Your task to perform on an android device: Open wifi settings Image 0: 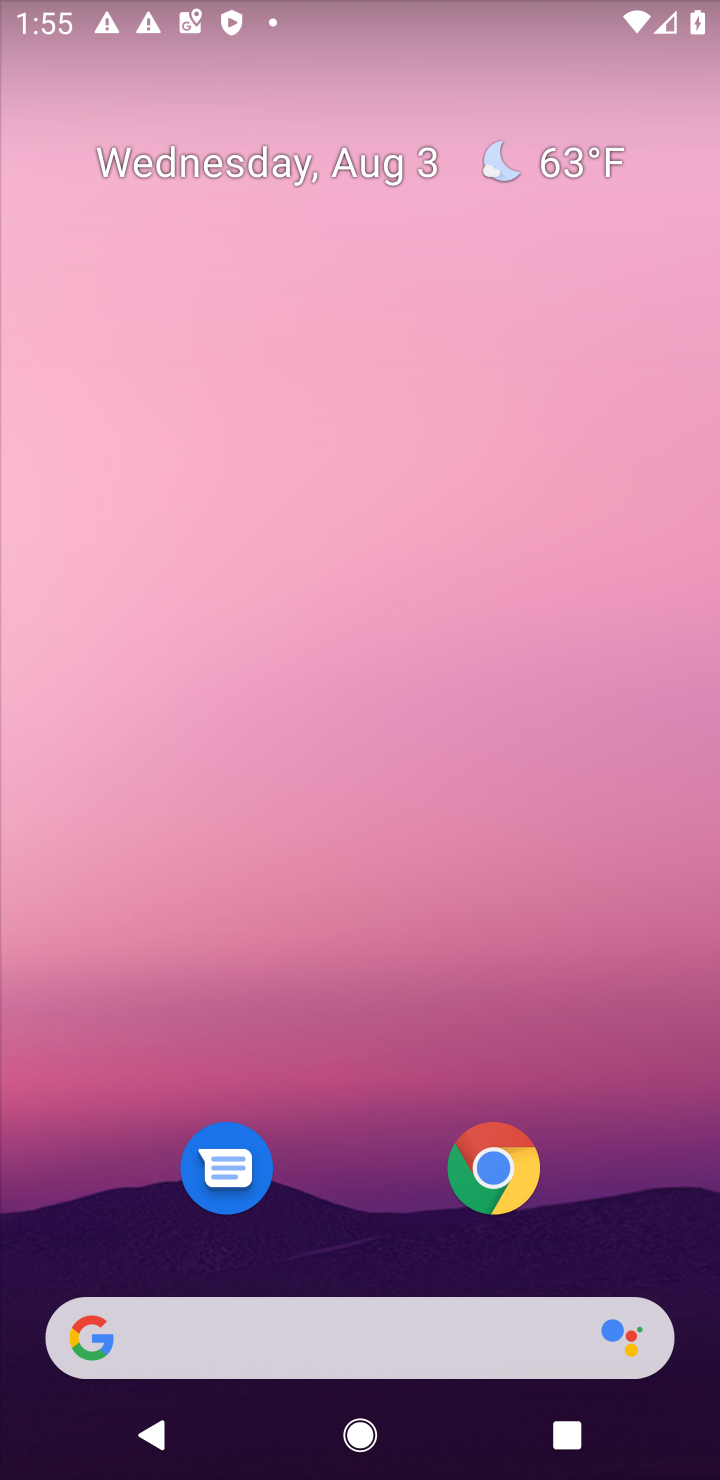
Step 0: drag from (643, 1249) to (579, 237)
Your task to perform on an android device: Open wifi settings Image 1: 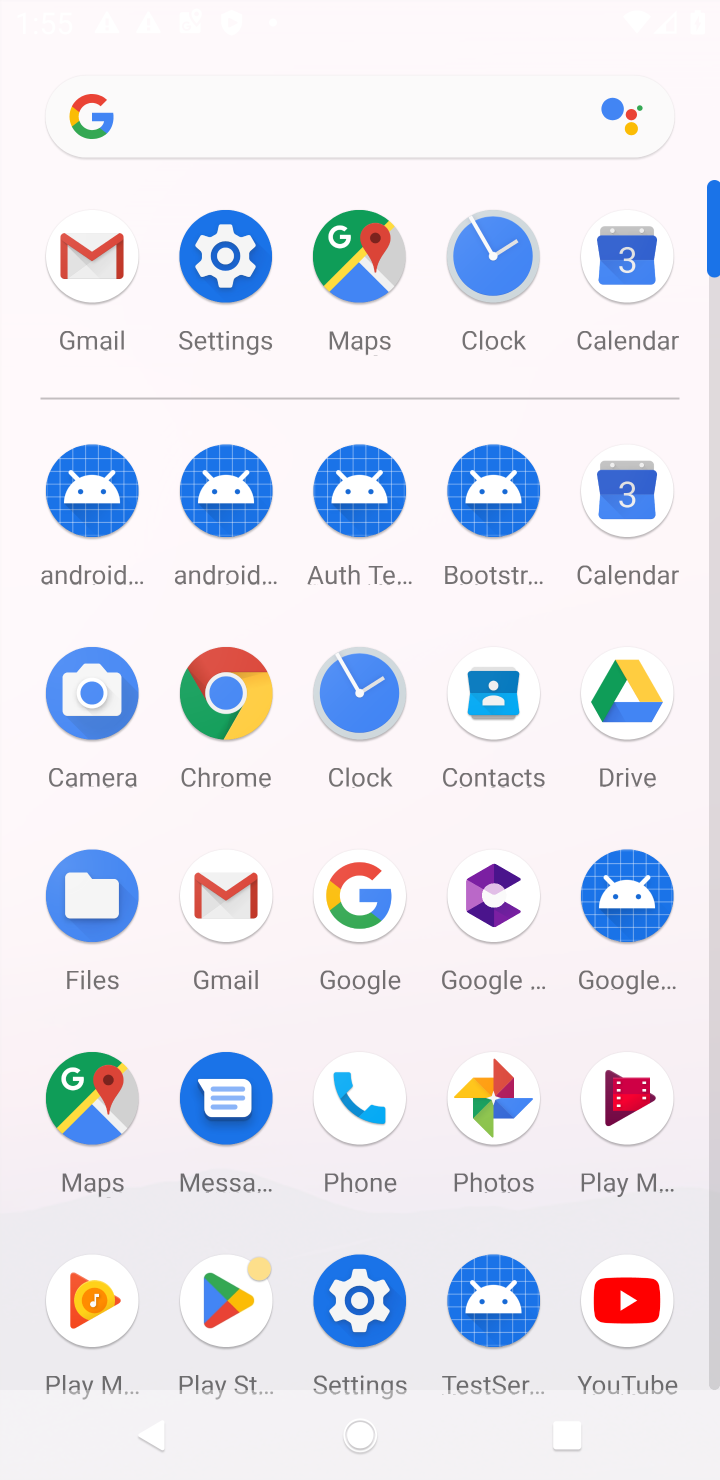
Step 1: click (355, 1299)
Your task to perform on an android device: Open wifi settings Image 2: 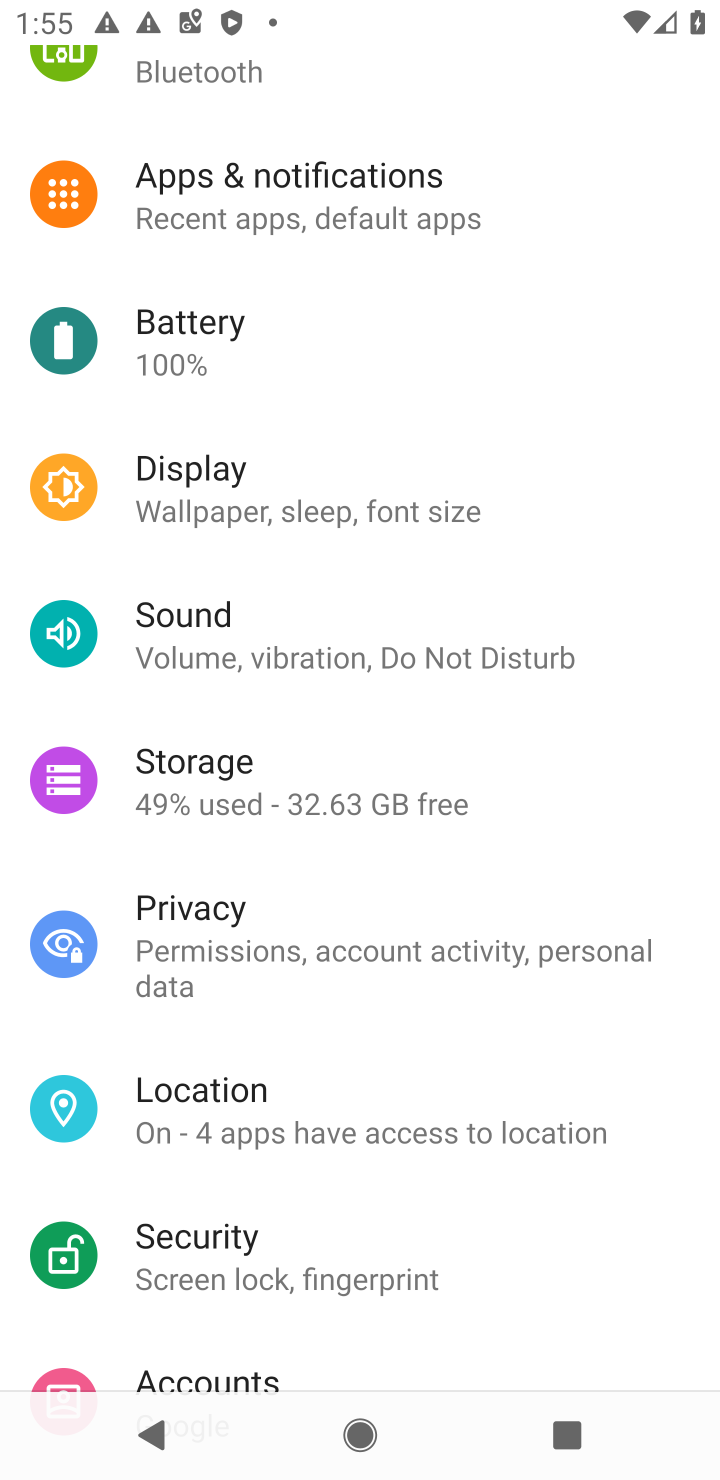
Step 2: drag from (573, 277) to (517, 770)
Your task to perform on an android device: Open wifi settings Image 3: 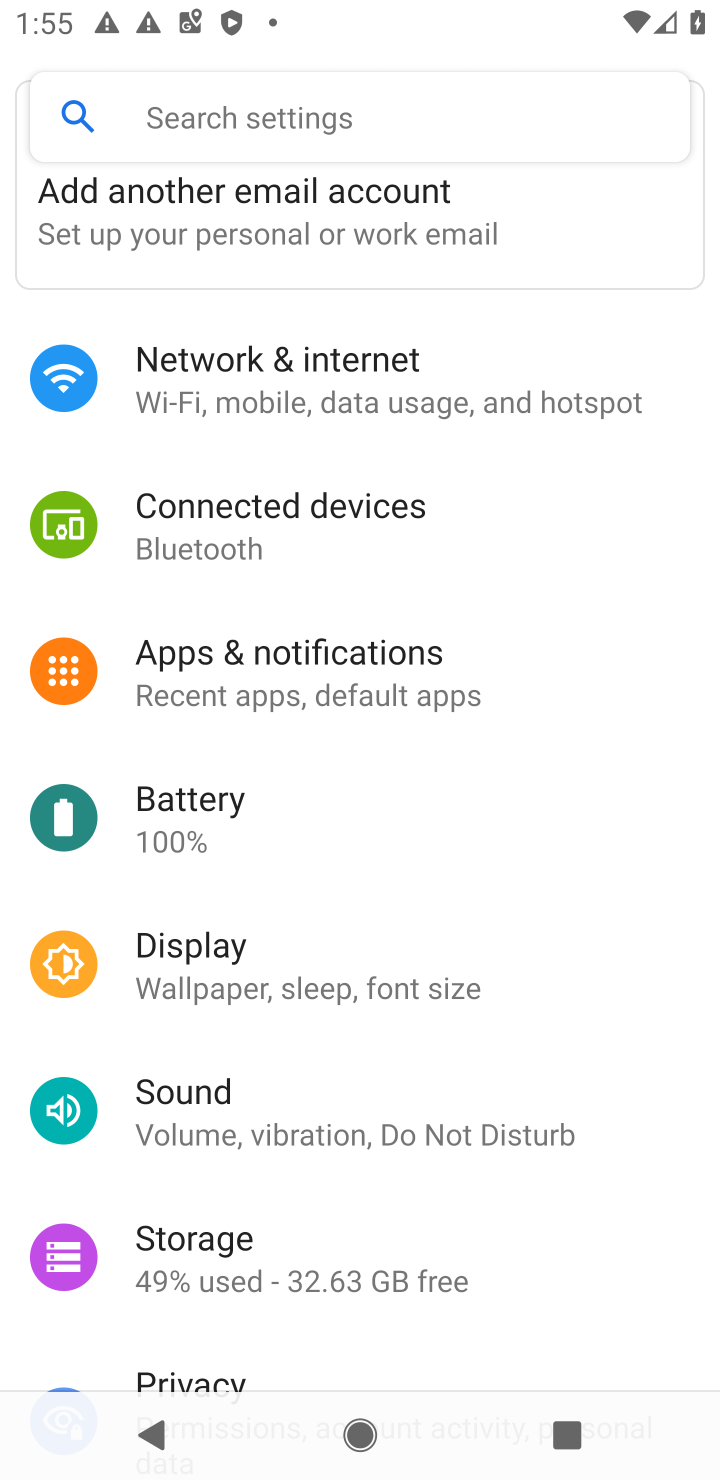
Step 3: click (218, 366)
Your task to perform on an android device: Open wifi settings Image 4: 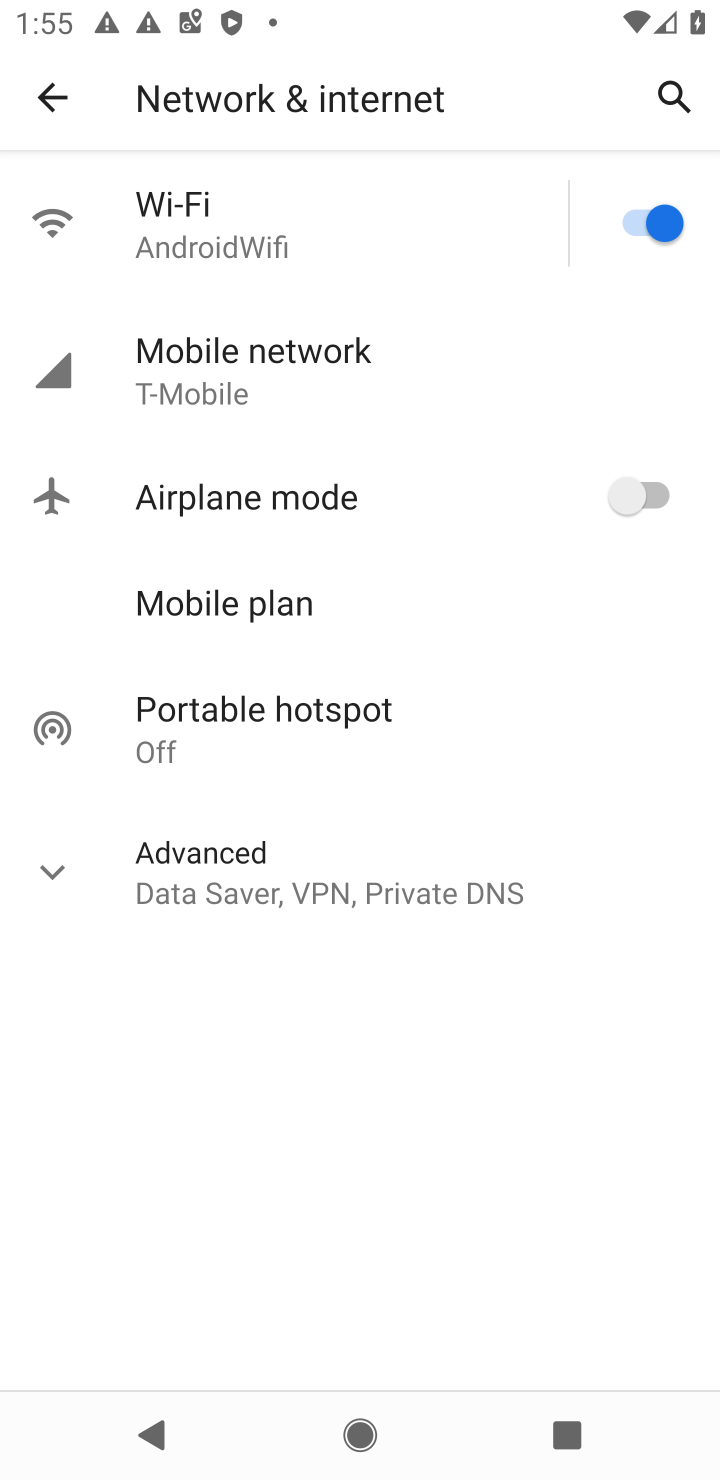
Step 4: click (186, 210)
Your task to perform on an android device: Open wifi settings Image 5: 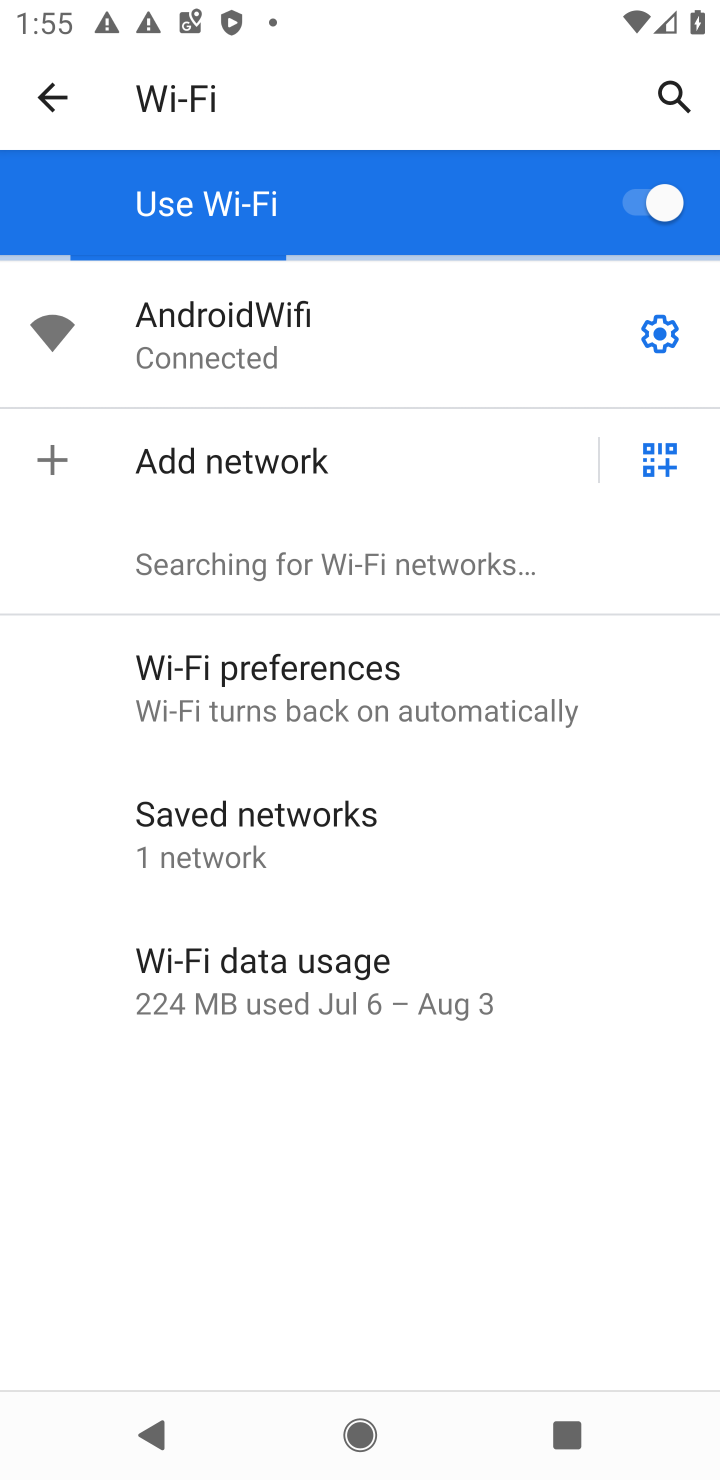
Step 5: click (659, 336)
Your task to perform on an android device: Open wifi settings Image 6: 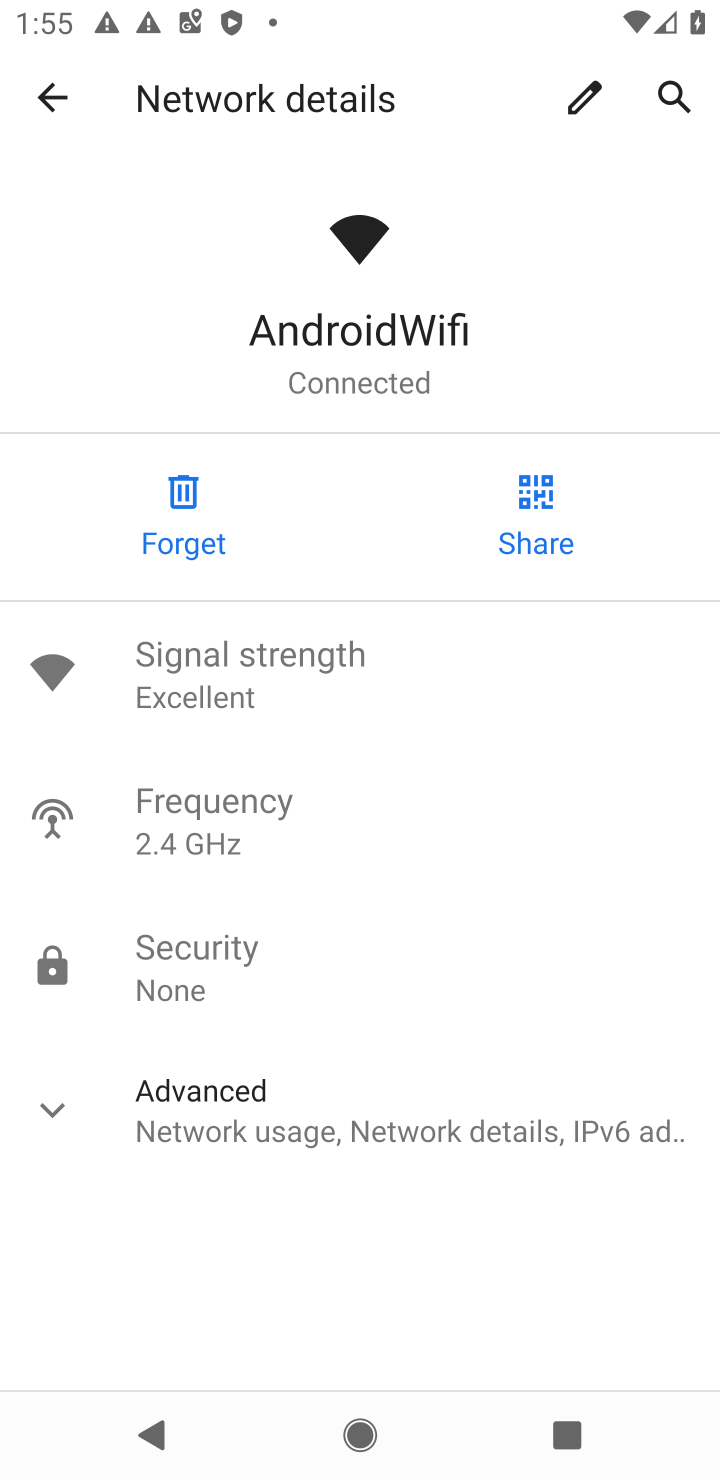
Step 6: task complete